Your task to perform on an android device: Open the web browser Image 0: 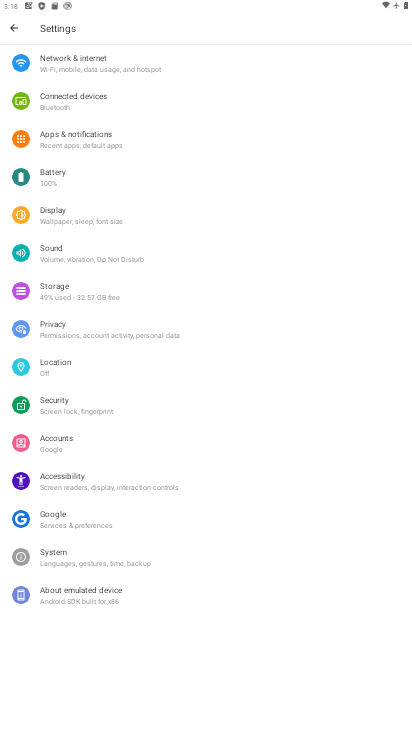
Step 0: press home button
Your task to perform on an android device: Open the web browser Image 1: 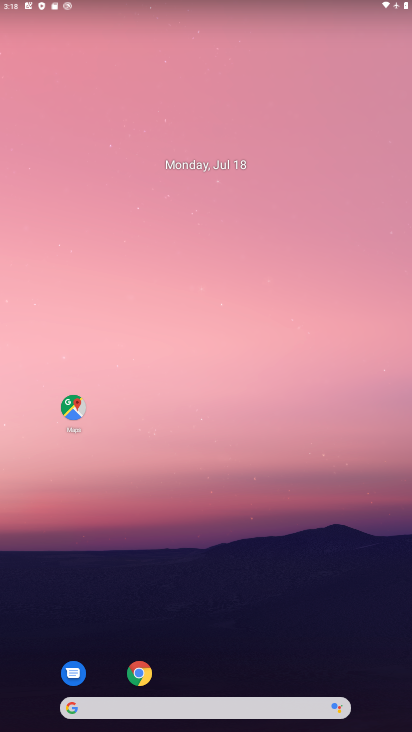
Step 1: click (146, 678)
Your task to perform on an android device: Open the web browser Image 2: 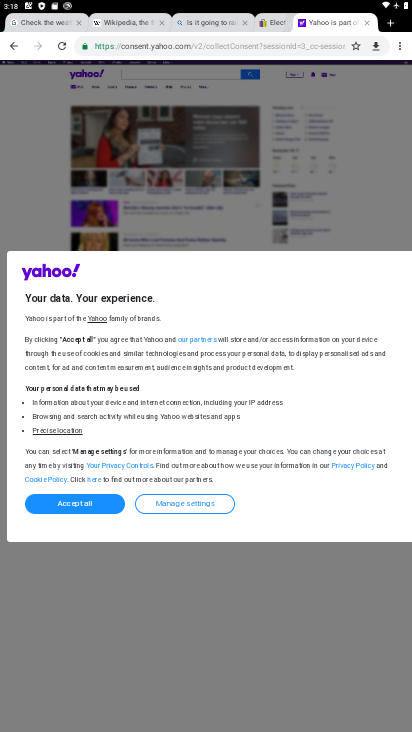
Step 2: task complete